Your task to perform on an android device: Add "usb-a" to the cart on target.com Image 0: 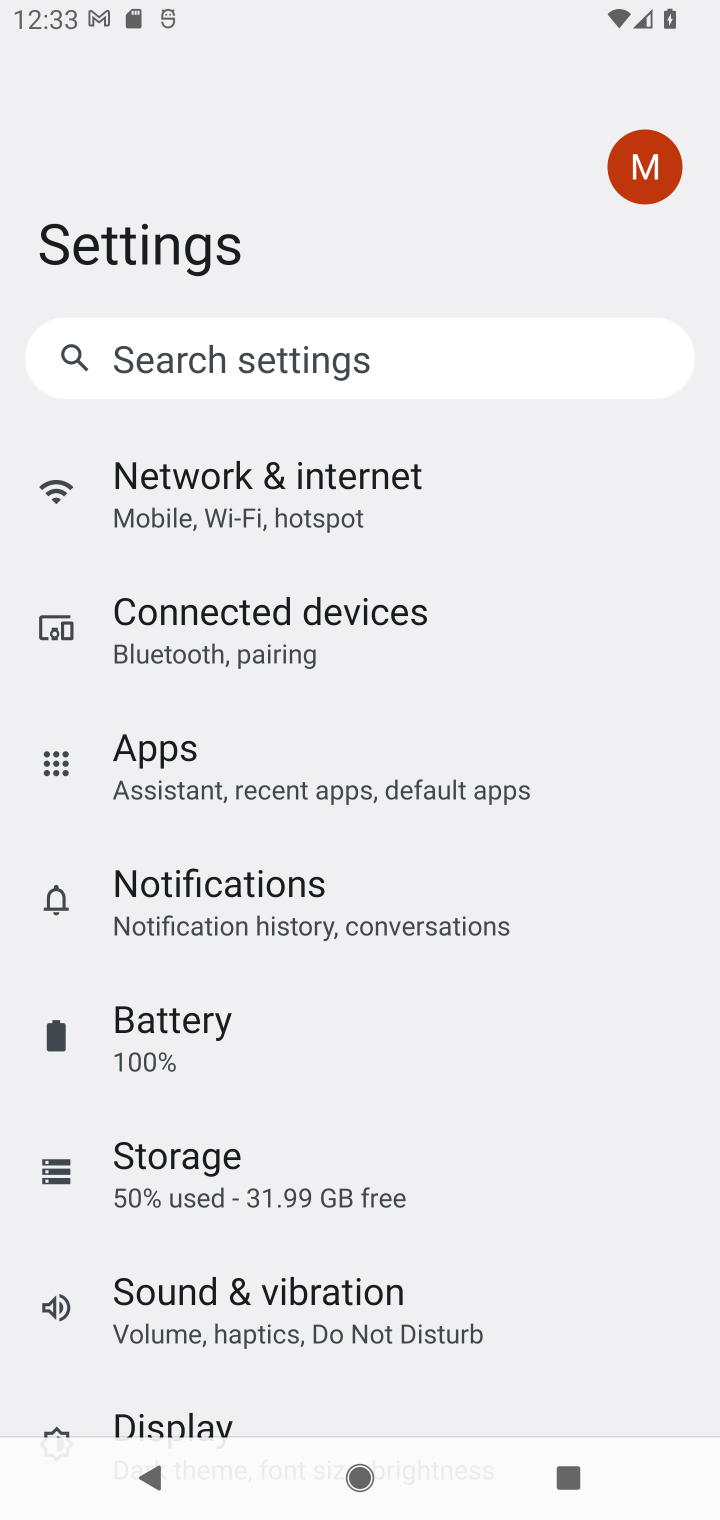
Step 0: press home button
Your task to perform on an android device: Add "usb-a" to the cart on target.com Image 1: 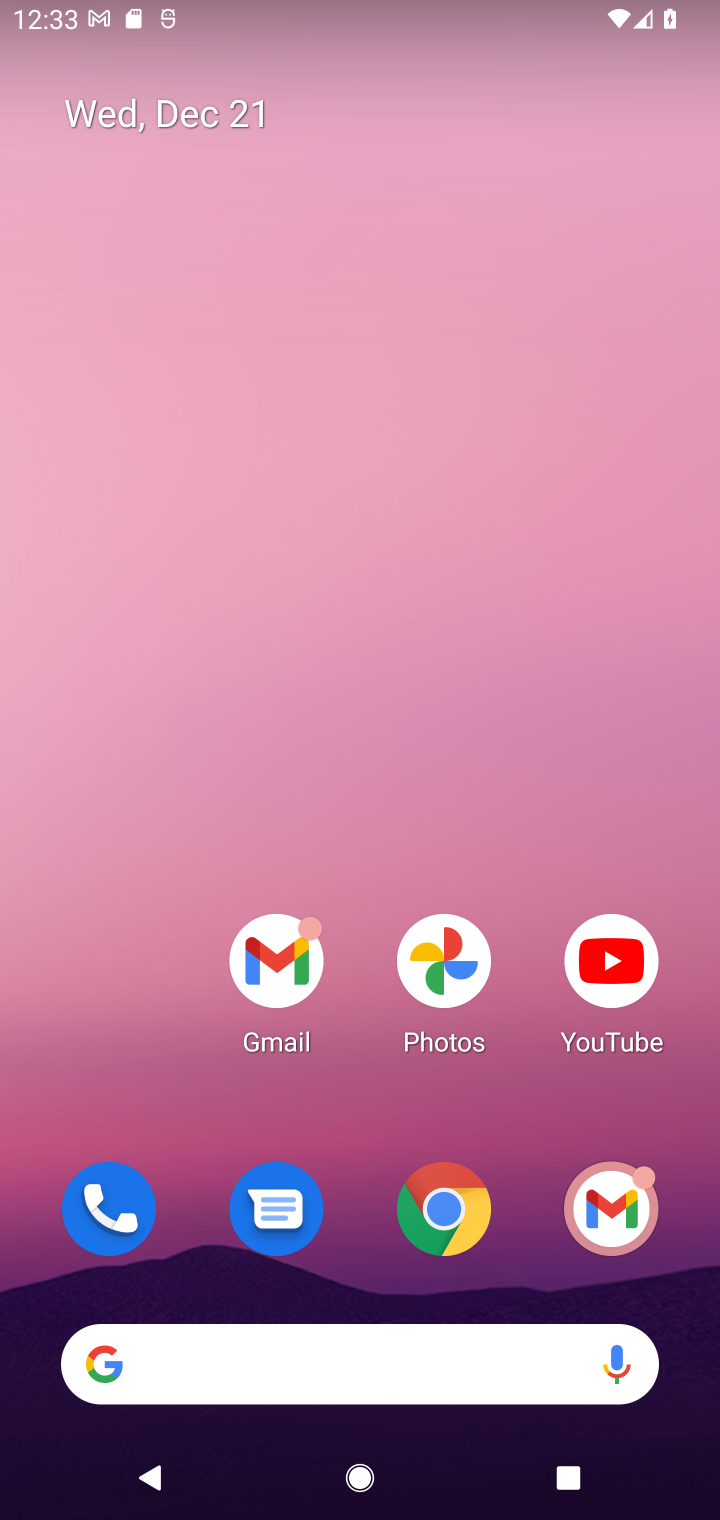
Step 1: click (453, 1220)
Your task to perform on an android device: Add "usb-a" to the cart on target.com Image 2: 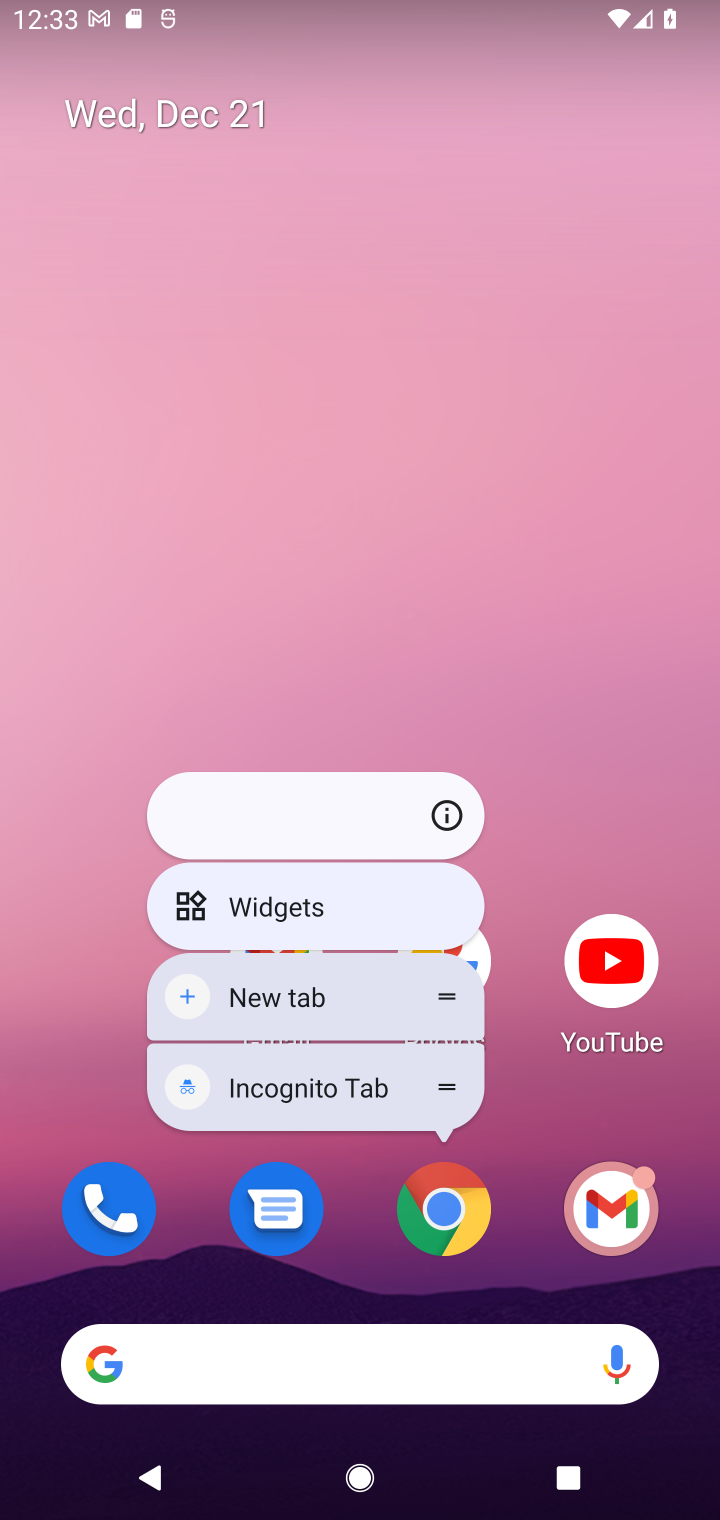
Step 2: click (447, 1224)
Your task to perform on an android device: Add "usb-a" to the cart on target.com Image 3: 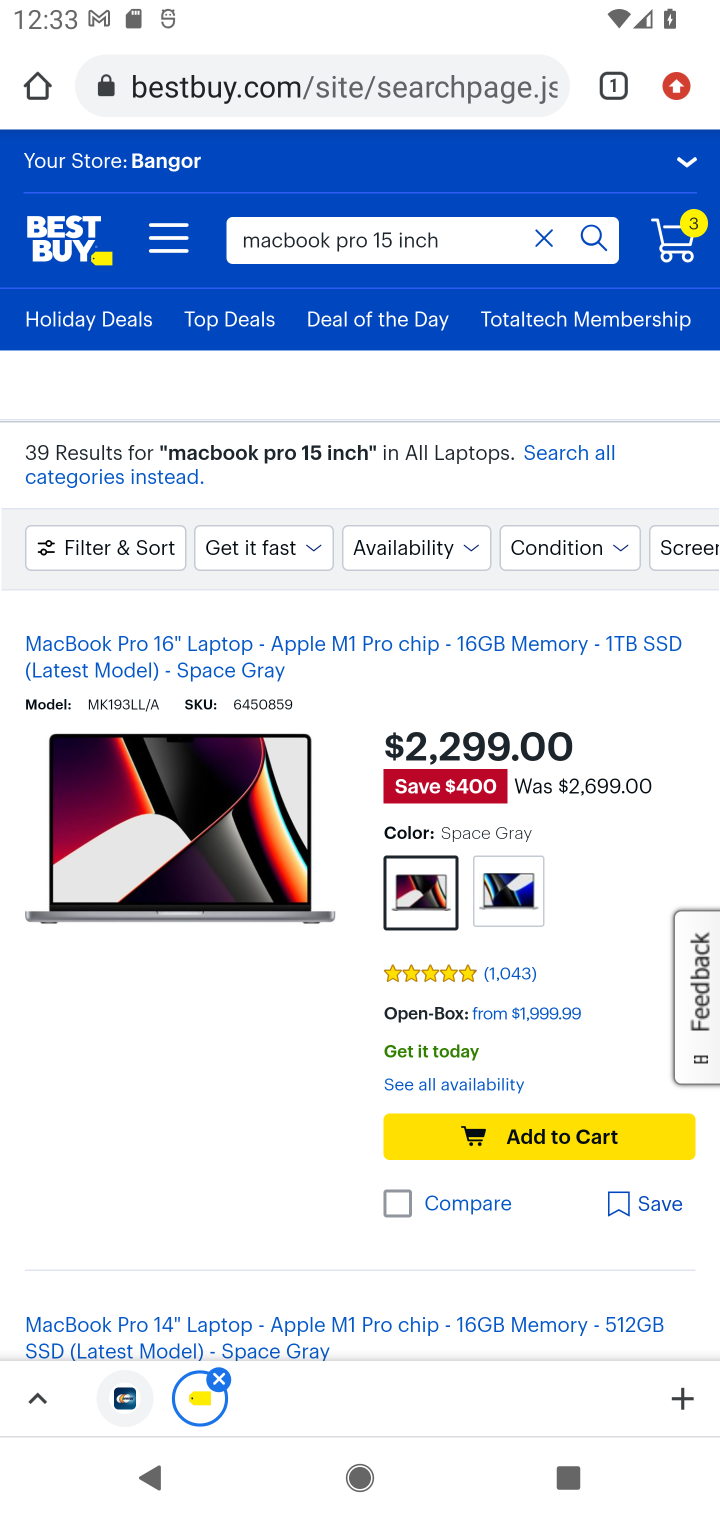
Step 3: click (259, 89)
Your task to perform on an android device: Add "usb-a" to the cart on target.com Image 4: 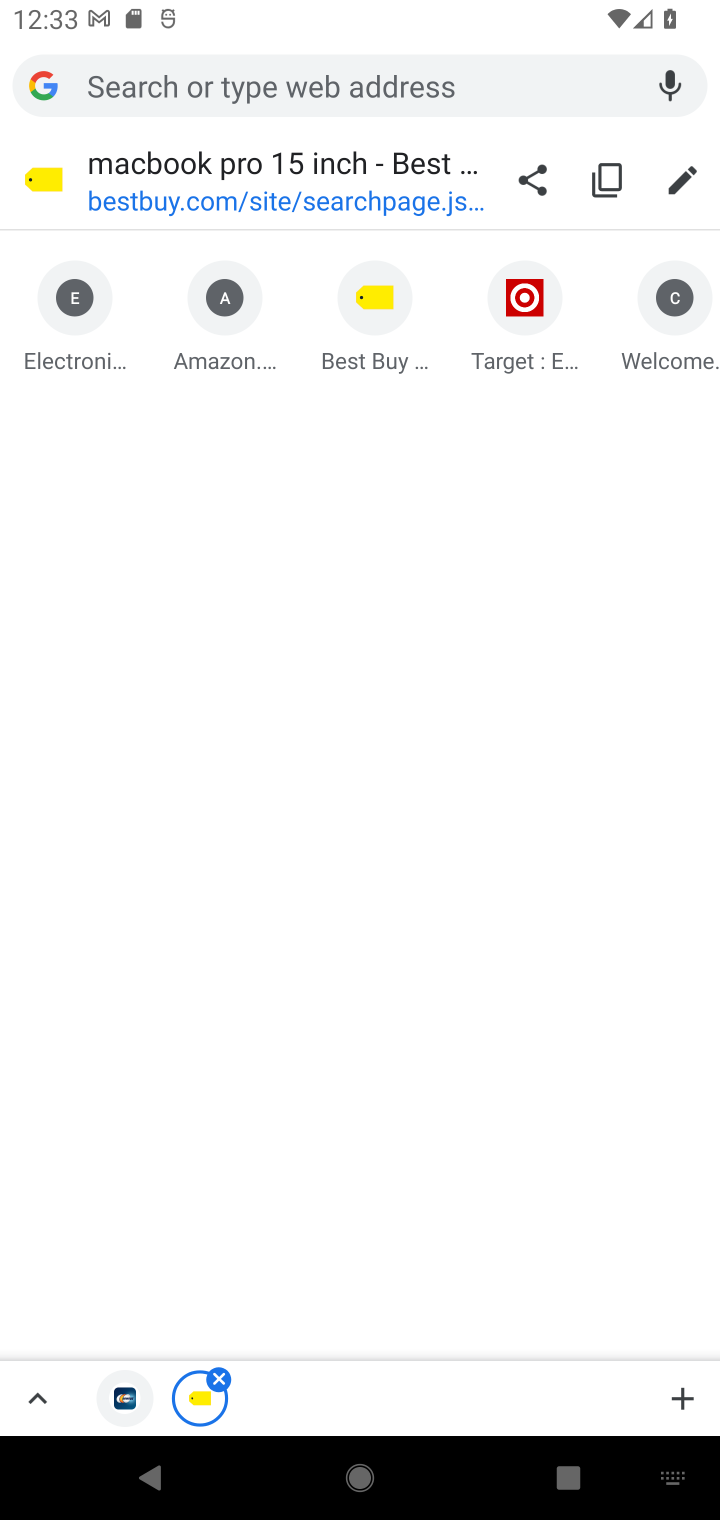
Step 4: click (508, 349)
Your task to perform on an android device: Add "usb-a" to the cart on target.com Image 5: 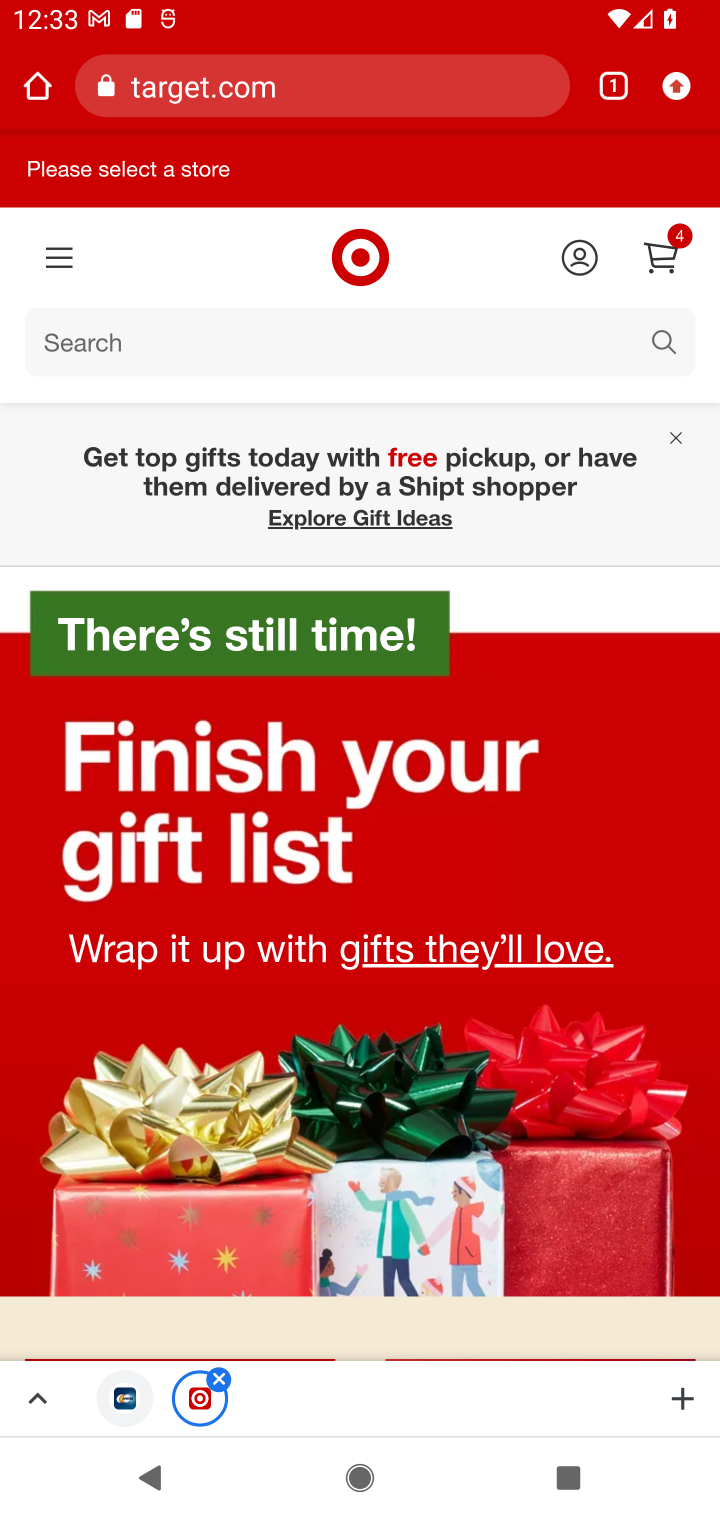
Step 5: click (106, 352)
Your task to perform on an android device: Add "usb-a" to the cart on target.com Image 6: 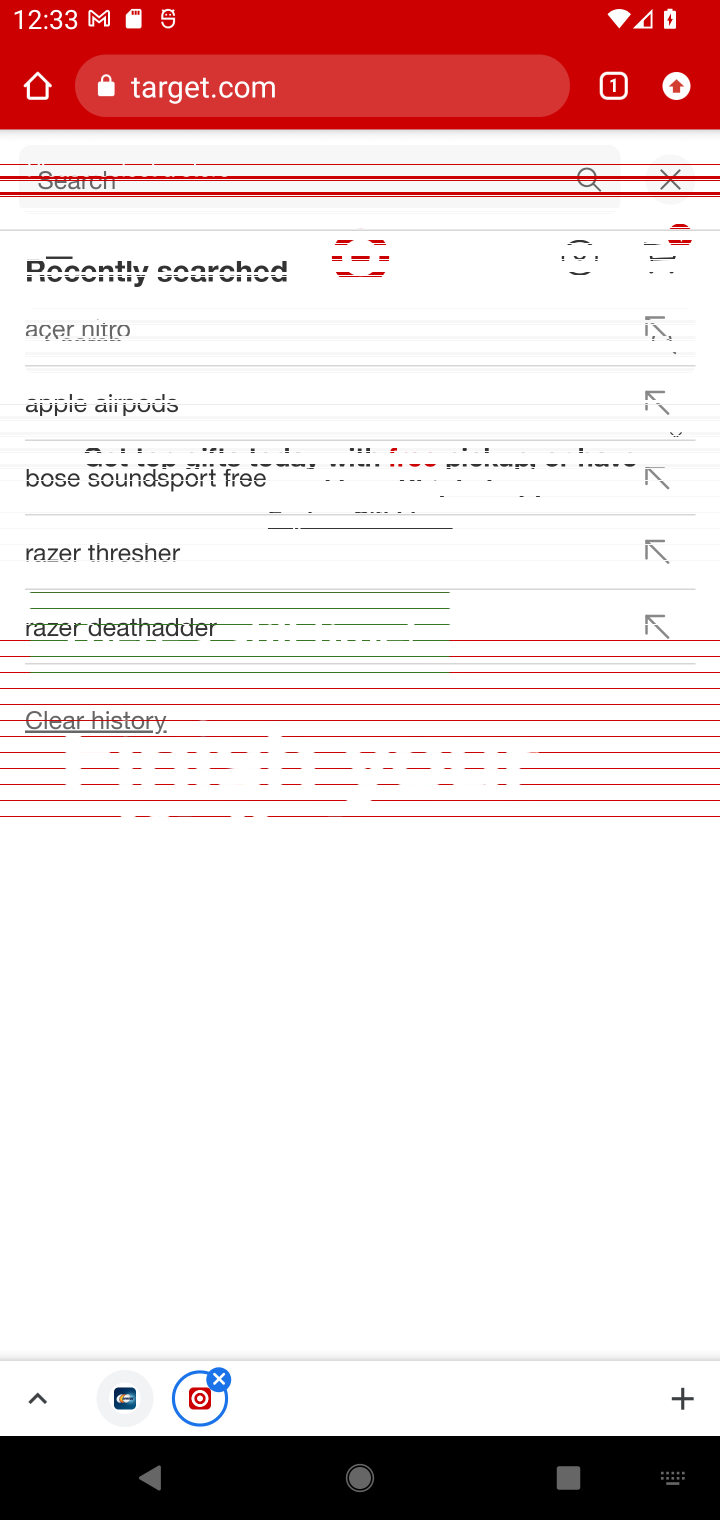
Step 6: type "usb-a"
Your task to perform on an android device: Add "usb-a" to the cart on target.com Image 7: 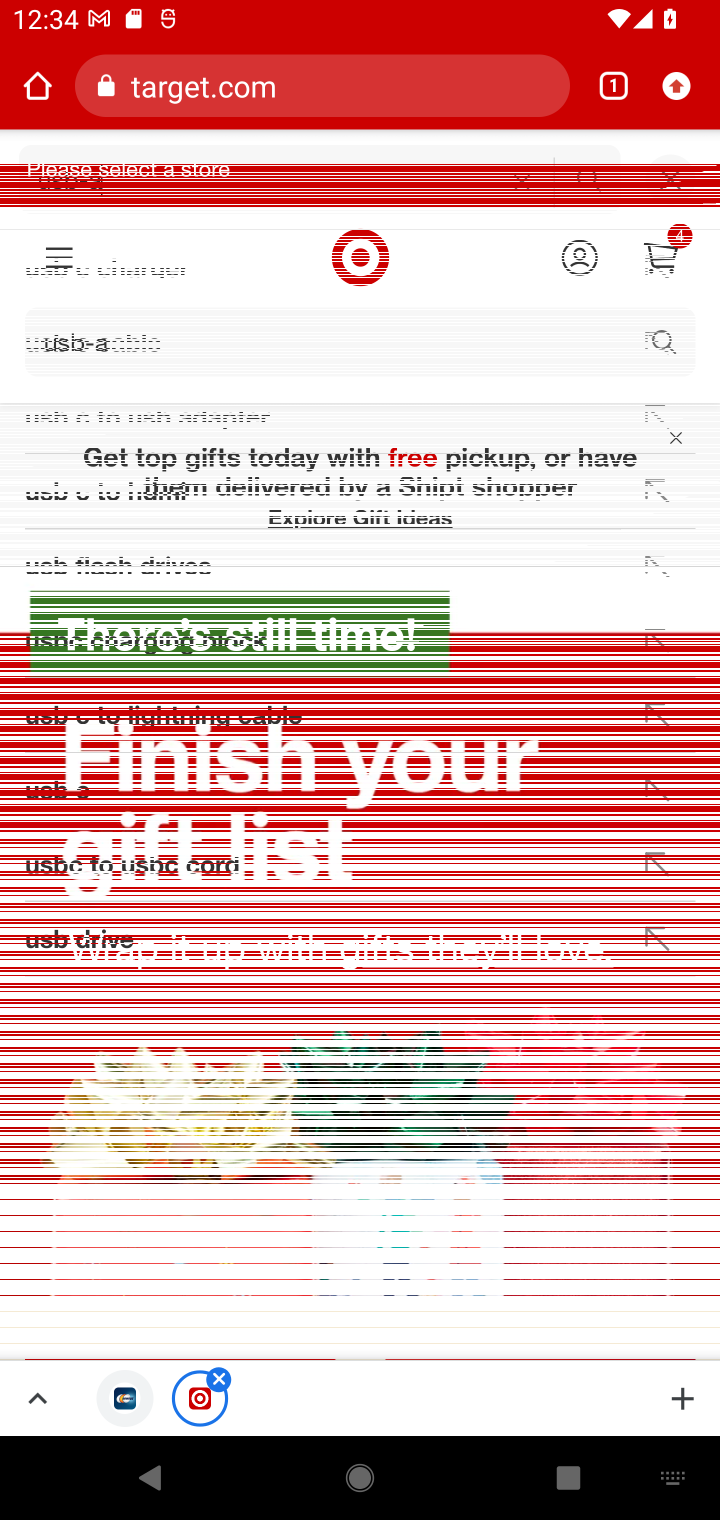
Step 7: click (583, 178)
Your task to perform on an android device: Add "usb-a" to the cart on target.com Image 8: 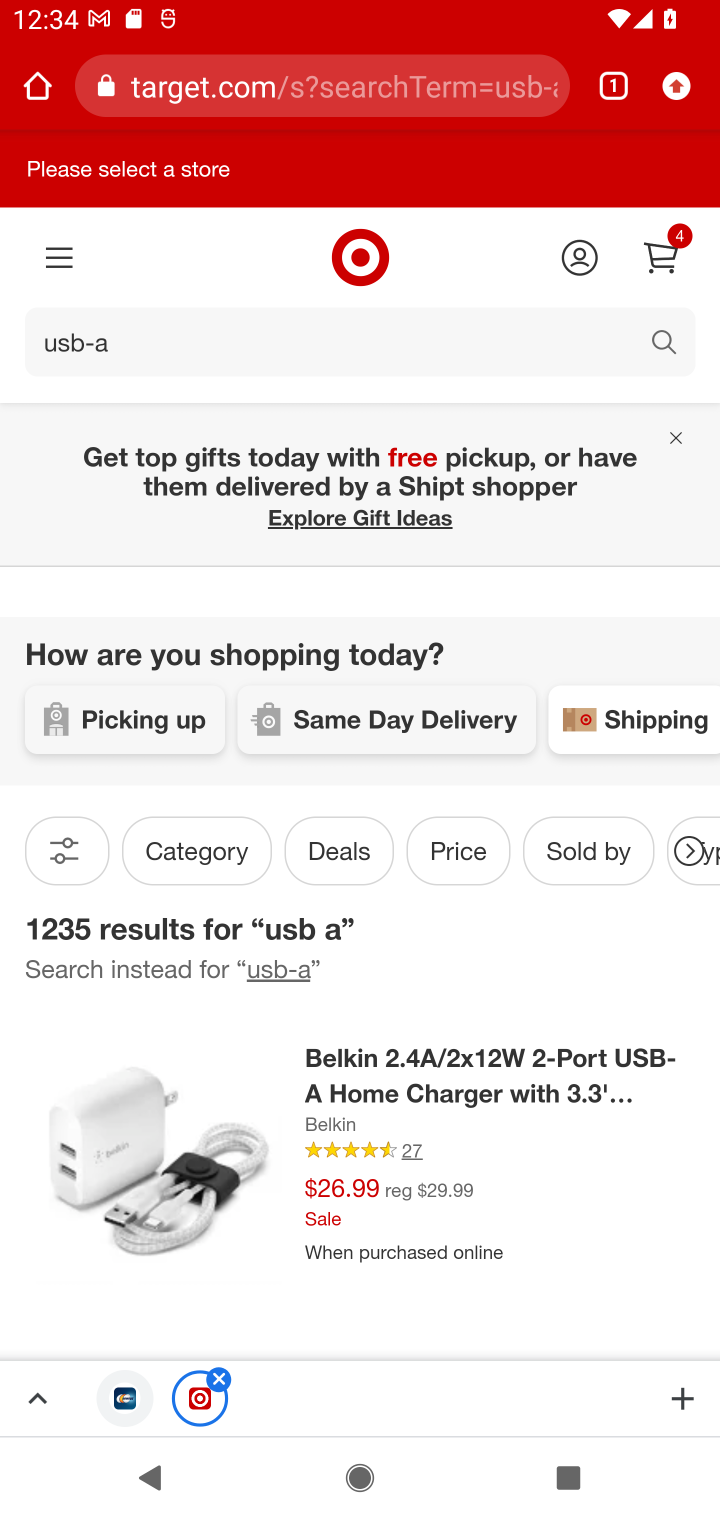
Step 8: drag from (375, 1097) to (374, 811)
Your task to perform on an android device: Add "usb-a" to the cart on target.com Image 9: 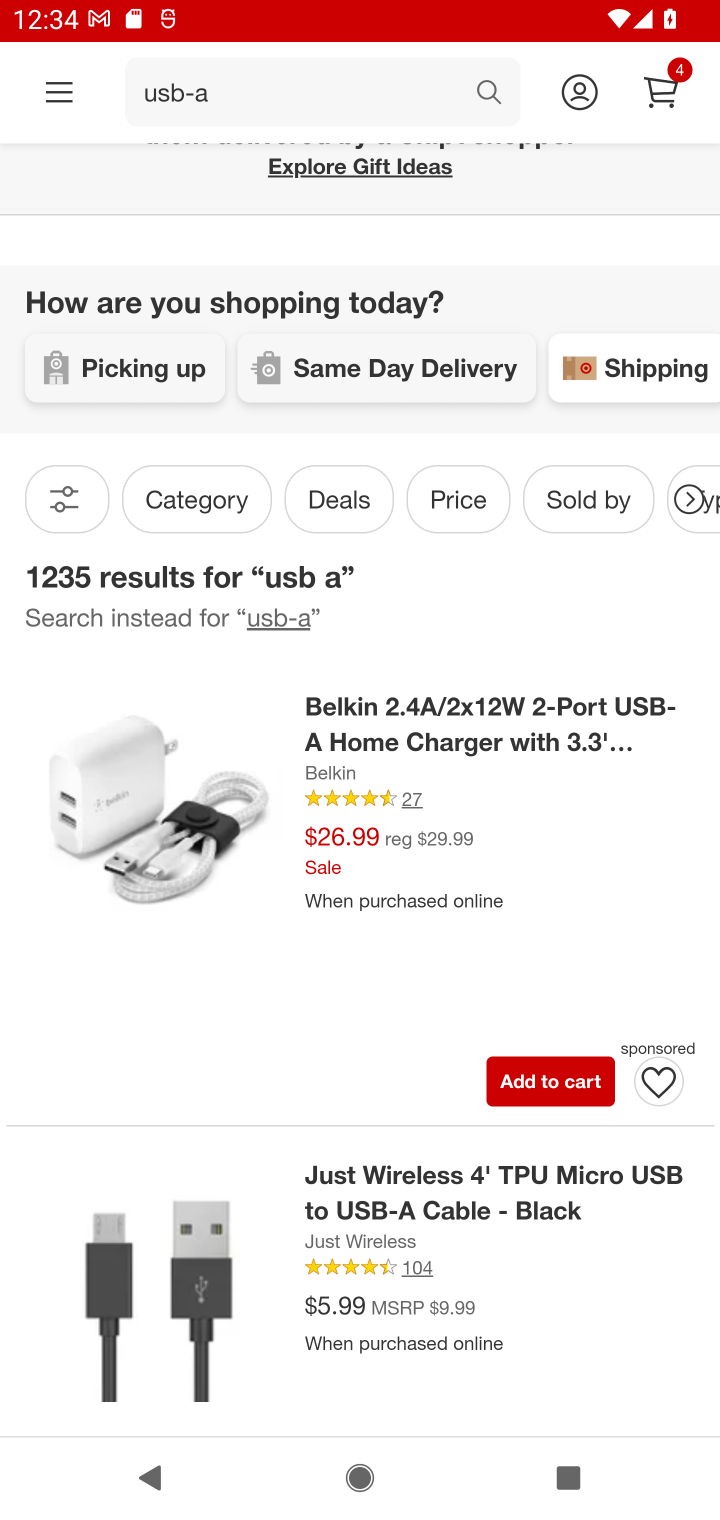
Step 9: click (541, 1088)
Your task to perform on an android device: Add "usb-a" to the cart on target.com Image 10: 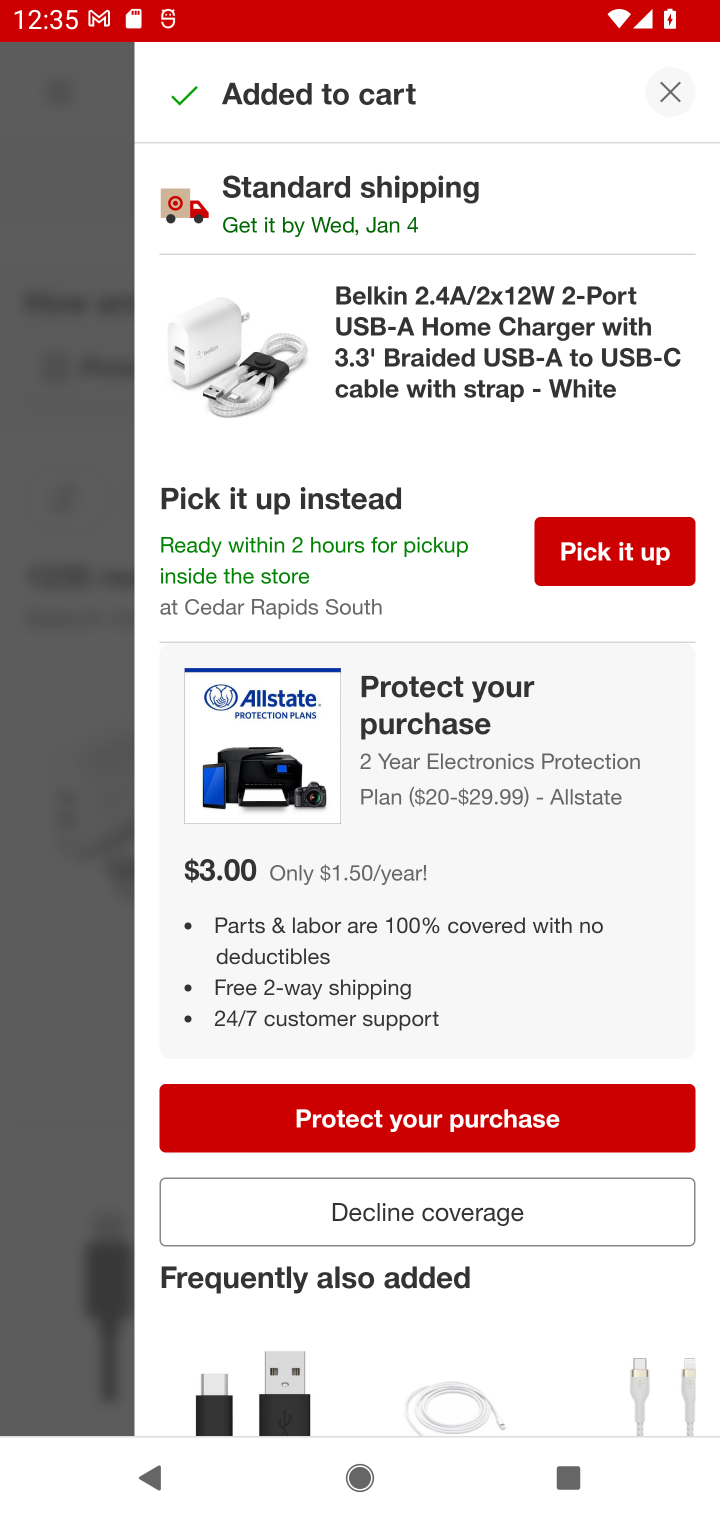
Step 10: task complete